Your task to perform on an android device: turn off sleep mode Image 0: 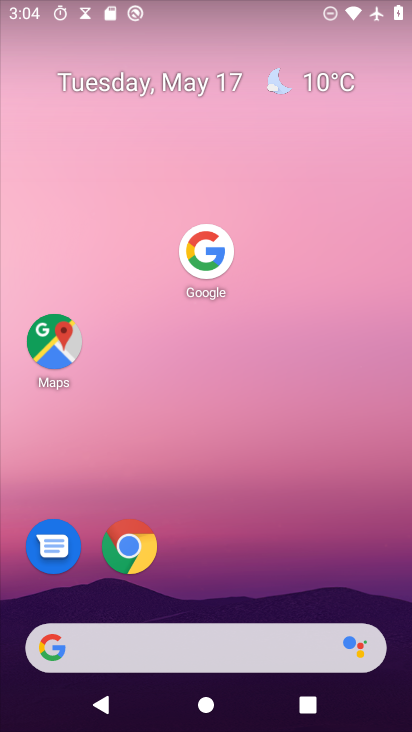
Step 0: press home button
Your task to perform on an android device: turn off sleep mode Image 1: 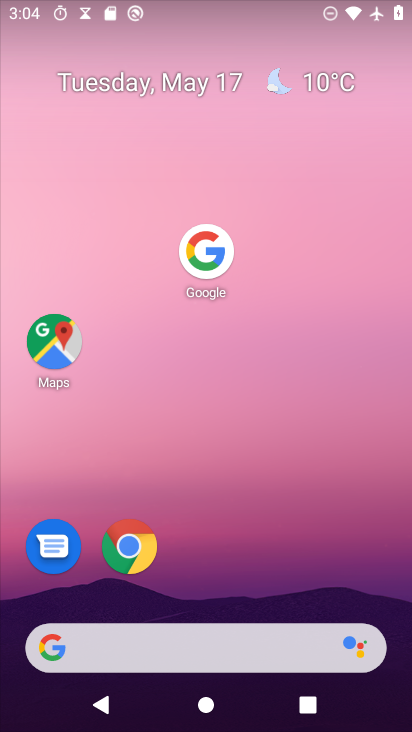
Step 1: drag from (168, 614) to (274, 52)
Your task to perform on an android device: turn off sleep mode Image 2: 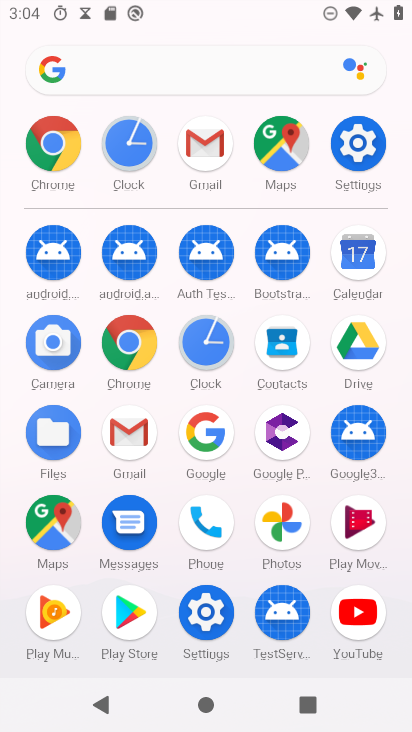
Step 2: click (352, 156)
Your task to perform on an android device: turn off sleep mode Image 3: 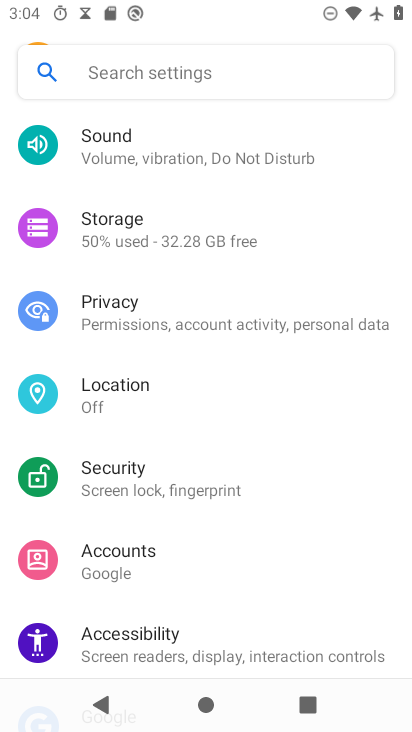
Step 3: drag from (304, 203) to (195, 607)
Your task to perform on an android device: turn off sleep mode Image 4: 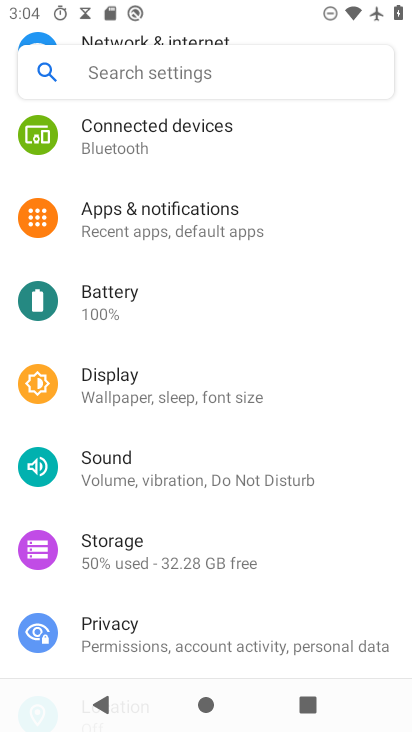
Step 4: drag from (308, 168) to (283, 349)
Your task to perform on an android device: turn off sleep mode Image 5: 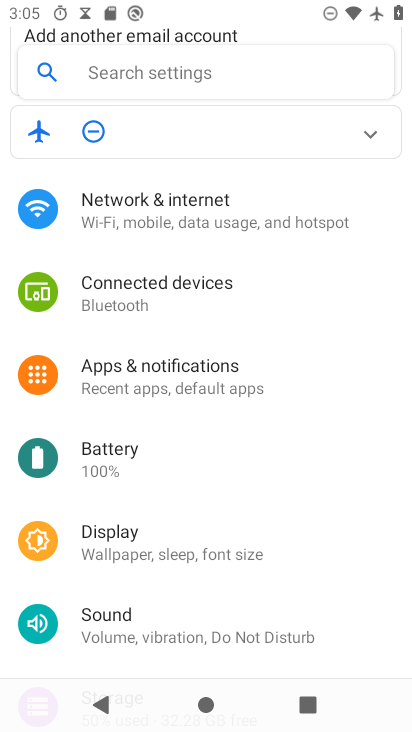
Step 5: click (149, 548)
Your task to perform on an android device: turn off sleep mode Image 6: 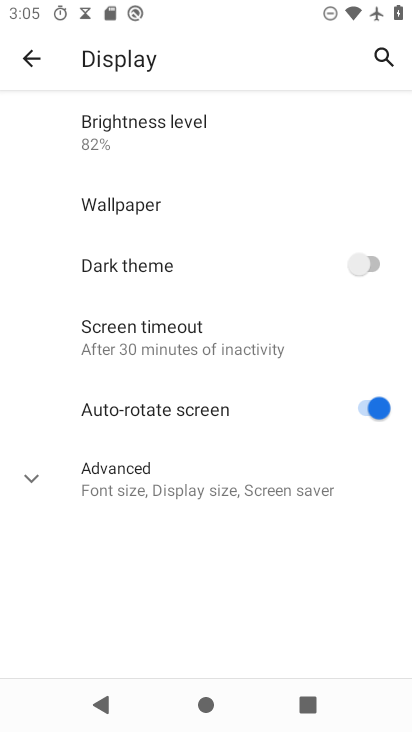
Step 6: task complete